Your task to perform on an android device: open wifi settings Image 0: 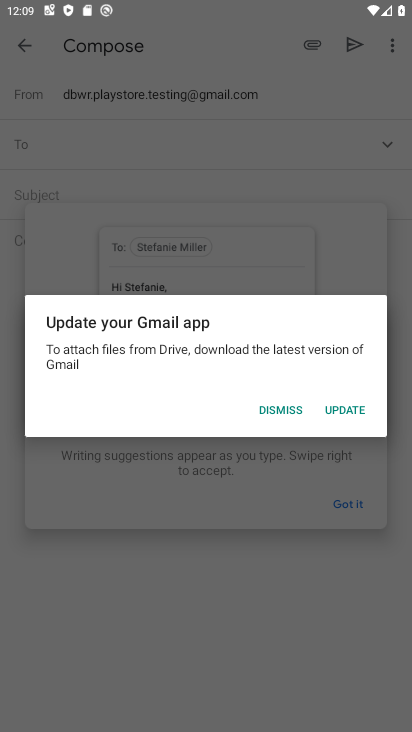
Step 0: press home button
Your task to perform on an android device: open wifi settings Image 1: 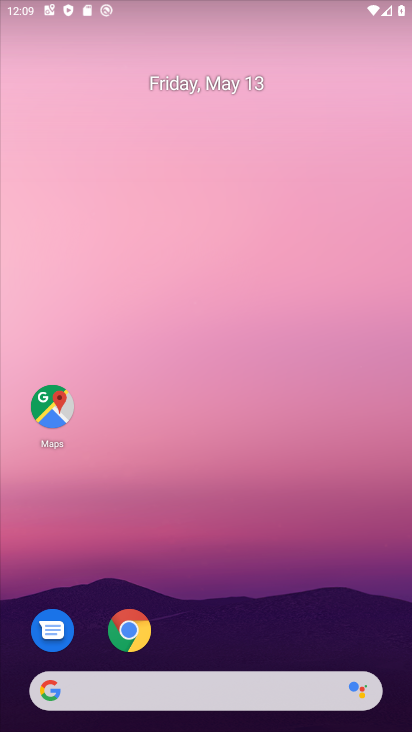
Step 1: drag from (376, 615) to (353, 145)
Your task to perform on an android device: open wifi settings Image 2: 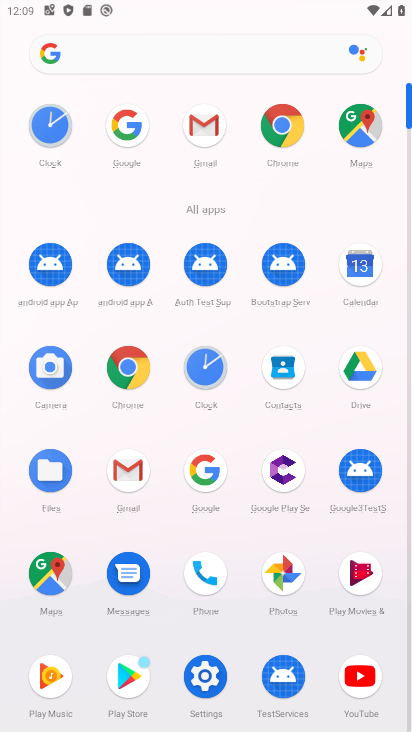
Step 2: click (198, 684)
Your task to perform on an android device: open wifi settings Image 3: 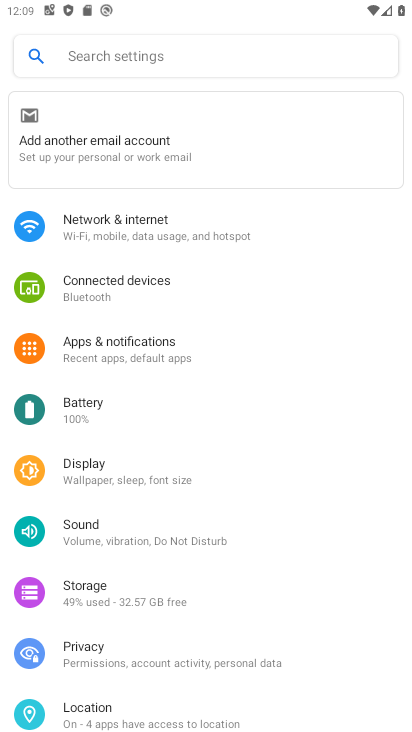
Step 3: click (187, 221)
Your task to perform on an android device: open wifi settings Image 4: 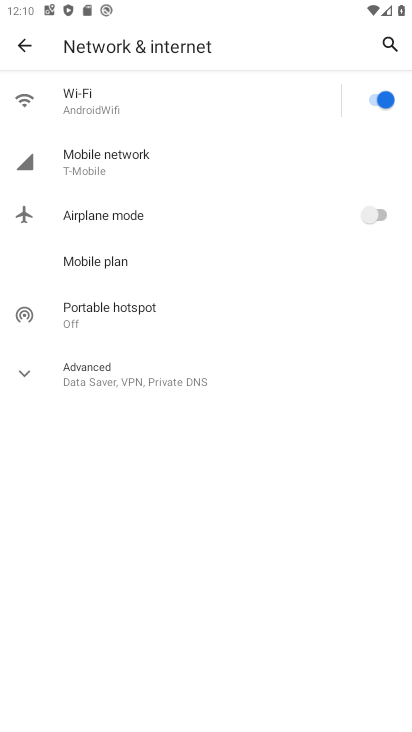
Step 4: click (202, 100)
Your task to perform on an android device: open wifi settings Image 5: 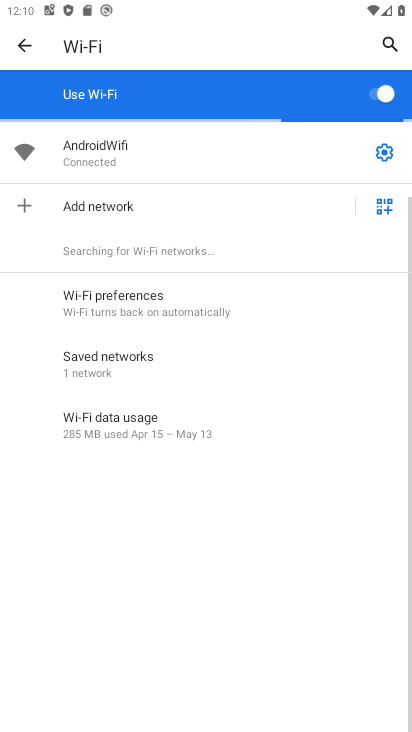
Step 5: click (396, 154)
Your task to perform on an android device: open wifi settings Image 6: 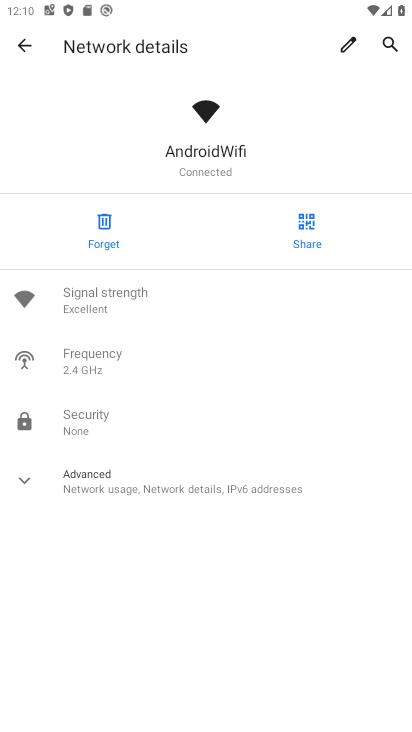
Step 6: task complete